Your task to perform on an android device: Open Google Chrome and open the bookmarks view Image 0: 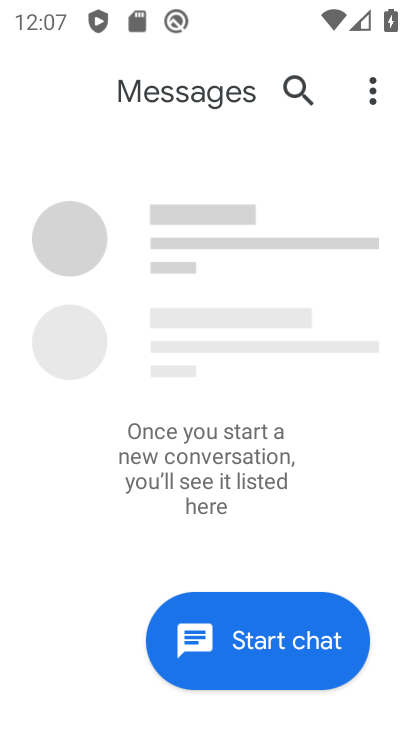
Step 0: press home button
Your task to perform on an android device: Open Google Chrome and open the bookmarks view Image 1: 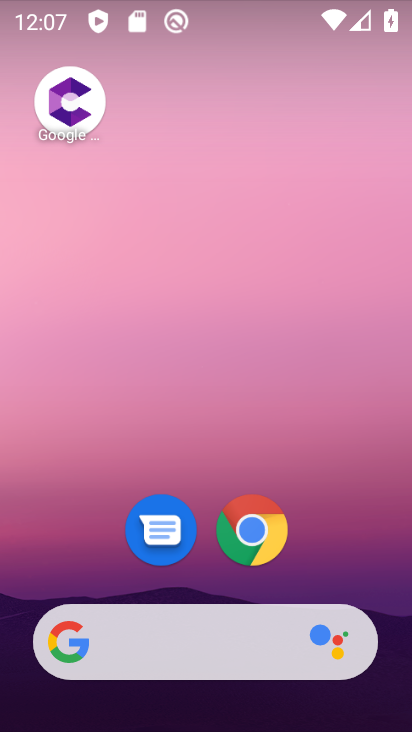
Step 1: drag from (327, 399) to (328, 205)
Your task to perform on an android device: Open Google Chrome and open the bookmarks view Image 2: 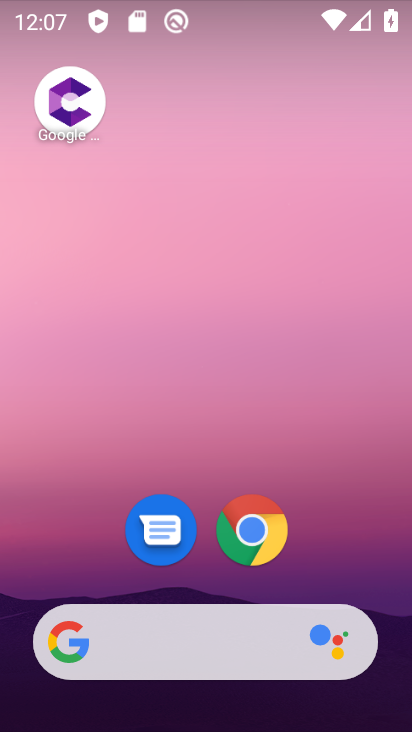
Step 2: drag from (322, 431) to (317, 252)
Your task to perform on an android device: Open Google Chrome and open the bookmarks view Image 3: 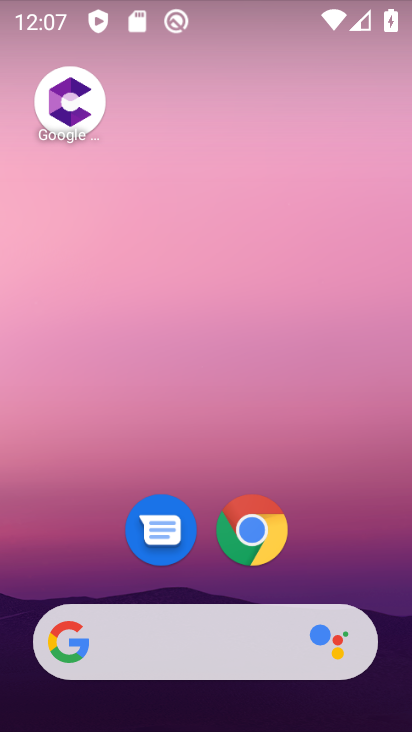
Step 3: drag from (364, 571) to (400, 298)
Your task to perform on an android device: Open Google Chrome and open the bookmarks view Image 4: 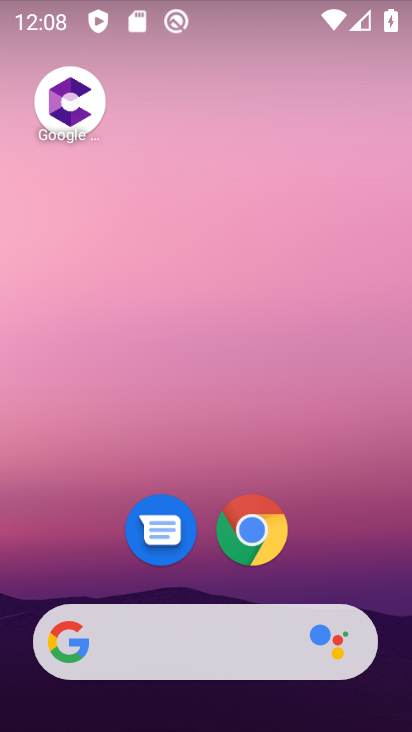
Step 4: drag from (332, 554) to (372, 171)
Your task to perform on an android device: Open Google Chrome and open the bookmarks view Image 5: 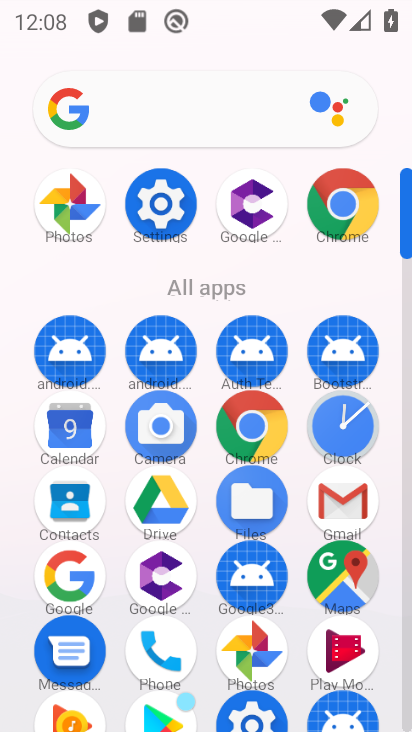
Step 5: click (337, 198)
Your task to perform on an android device: Open Google Chrome and open the bookmarks view Image 6: 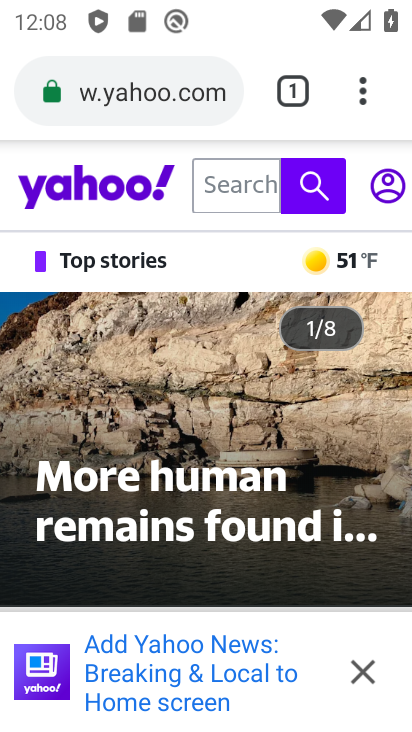
Step 6: click (353, 86)
Your task to perform on an android device: Open Google Chrome and open the bookmarks view Image 7: 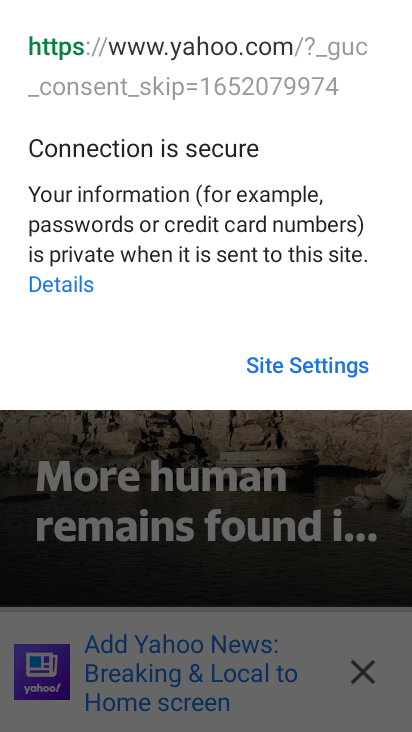
Step 7: press back button
Your task to perform on an android device: Open Google Chrome and open the bookmarks view Image 8: 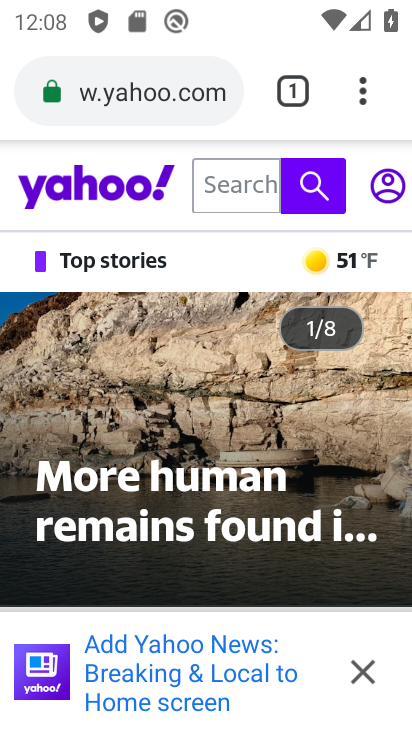
Step 8: click (339, 91)
Your task to perform on an android device: Open Google Chrome and open the bookmarks view Image 9: 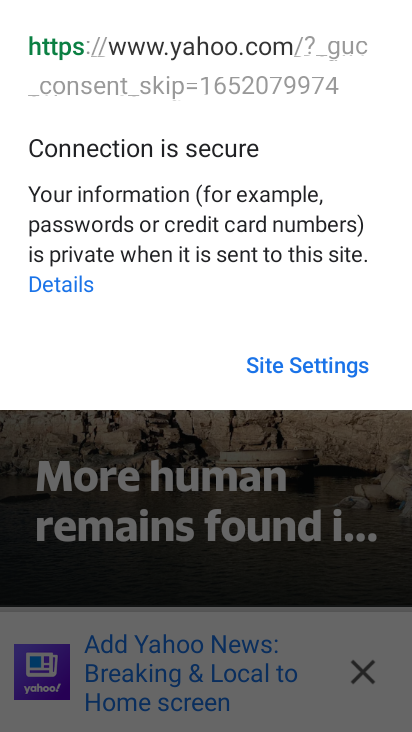
Step 9: press back button
Your task to perform on an android device: Open Google Chrome and open the bookmarks view Image 10: 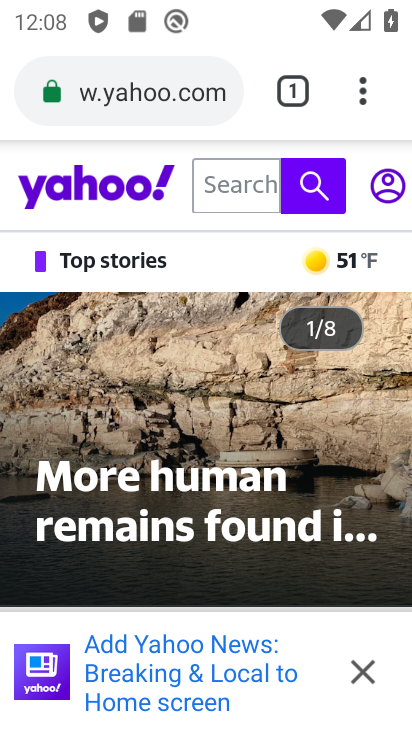
Step 10: click (350, 88)
Your task to perform on an android device: Open Google Chrome and open the bookmarks view Image 11: 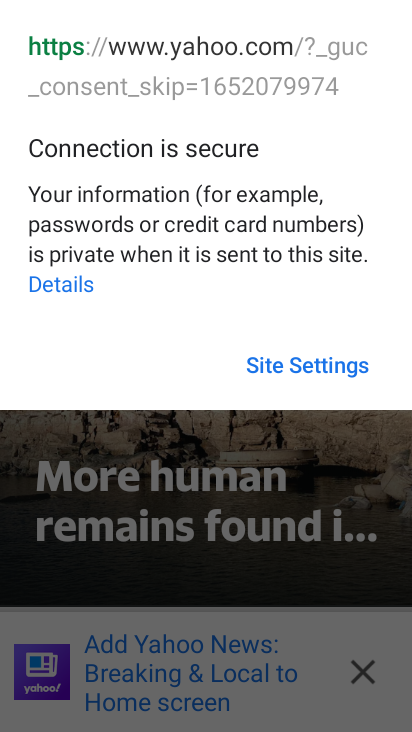
Step 11: click (351, 88)
Your task to perform on an android device: Open Google Chrome and open the bookmarks view Image 12: 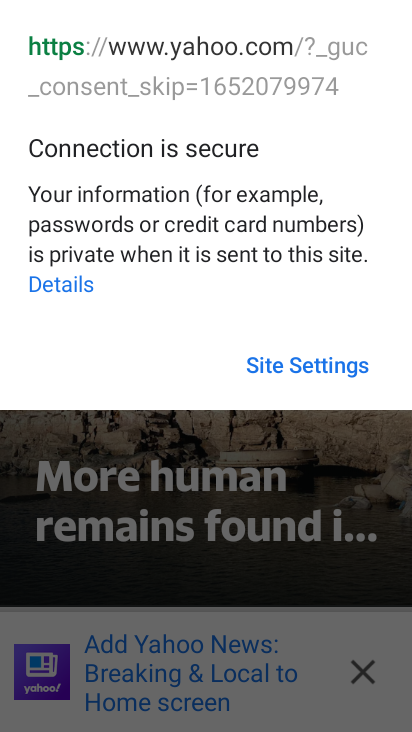
Step 12: click (289, 360)
Your task to perform on an android device: Open Google Chrome and open the bookmarks view Image 13: 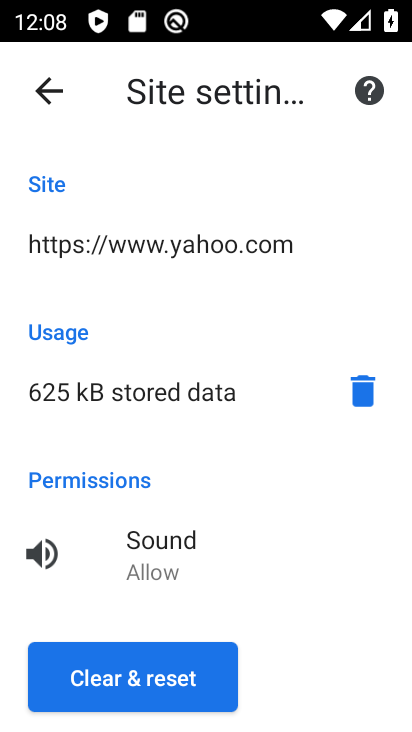
Step 13: click (54, 93)
Your task to perform on an android device: Open Google Chrome and open the bookmarks view Image 14: 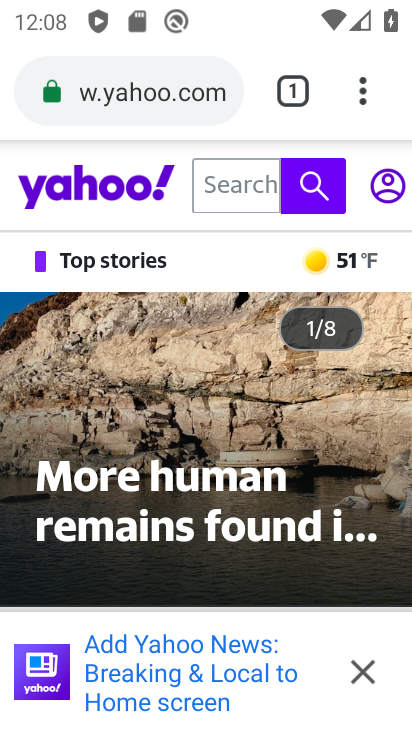
Step 14: click (356, 86)
Your task to perform on an android device: Open Google Chrome and open the bookmarks view Image 15: 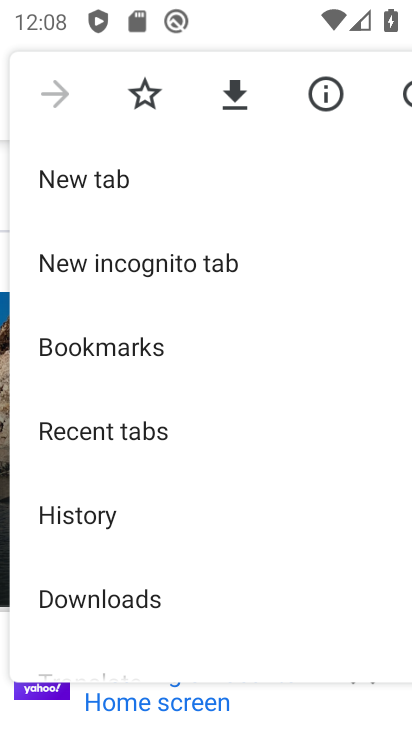
Step 15: click (165, 351)
Your task to perform on an android device: Open Google Chrome and open the bookmarks view Image 16: 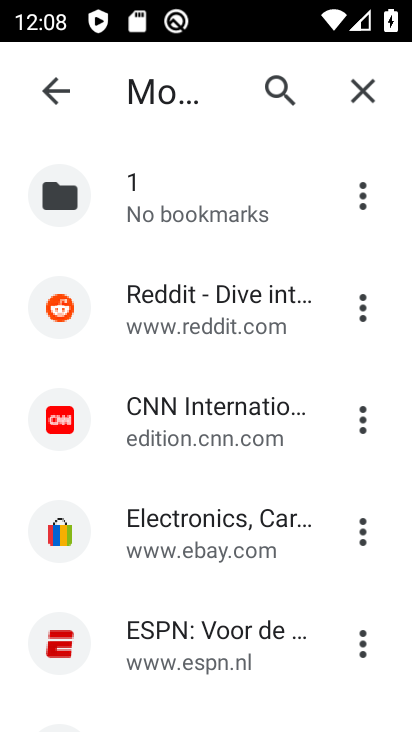
Step 16: task complete